Your task to perform on an android device: show emergency info Image 0: 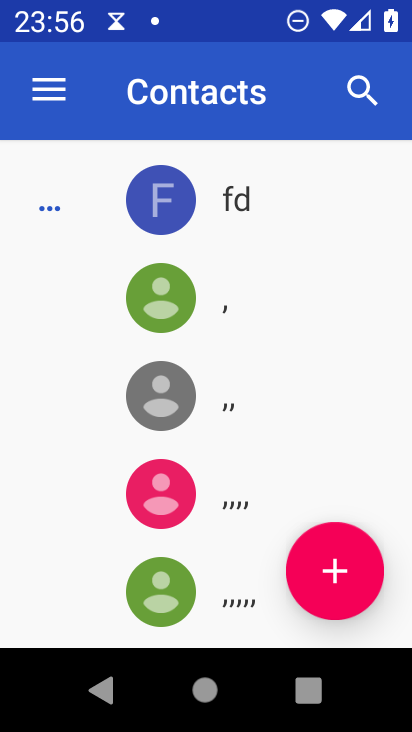
Step 0: press home button
Your task to perform on an android device: show emergency info Image 1: 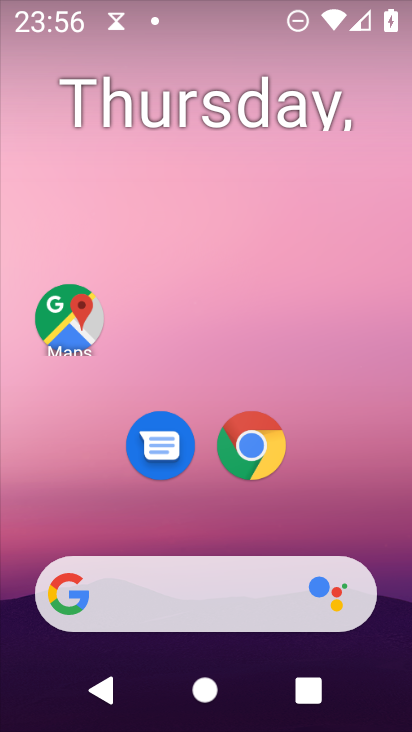
Step 1: drag from (230, 726) to (228, 49)
Your task to perform on an android device: show emergency info Image 2: 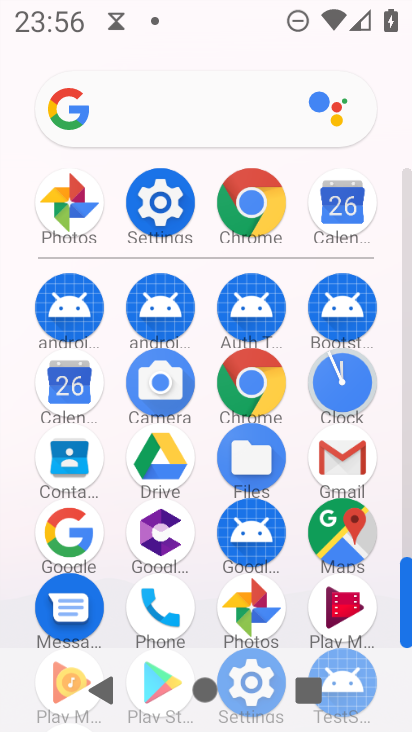
Step 2: click (165, 199)
Your task to perform on an android device: show emergency info Image 3: 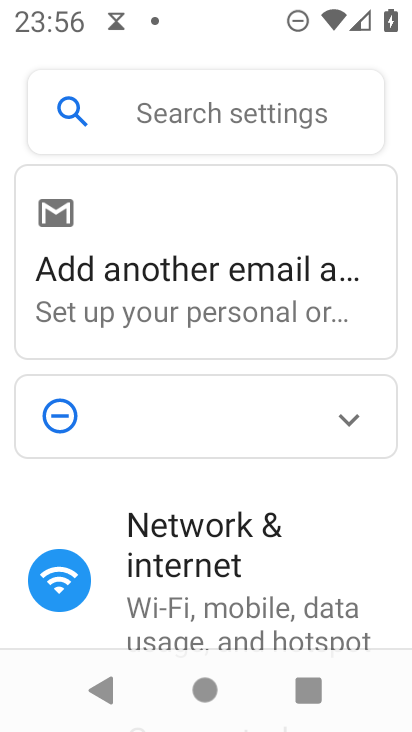
Step 3: drag from (241, 632) to (234, 248)
Your task to perform on an android device: show emergency info Image 4: 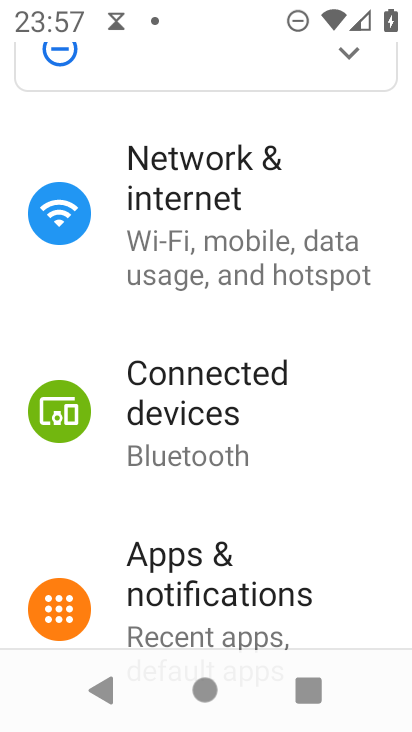
Step 4: drag from (228, 642) to (237, 300)
Your task to perform on an android device: show emergency info Image 5: 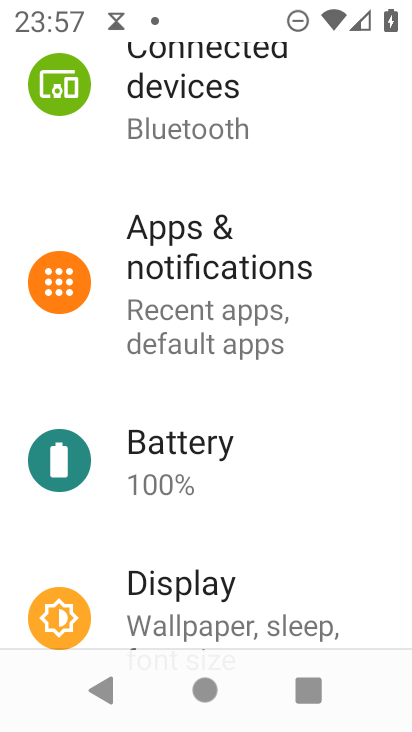
Step 5: drag from (231, 631) to (229, 347)
Your task to perform on an android device: show emergency info Image 6: 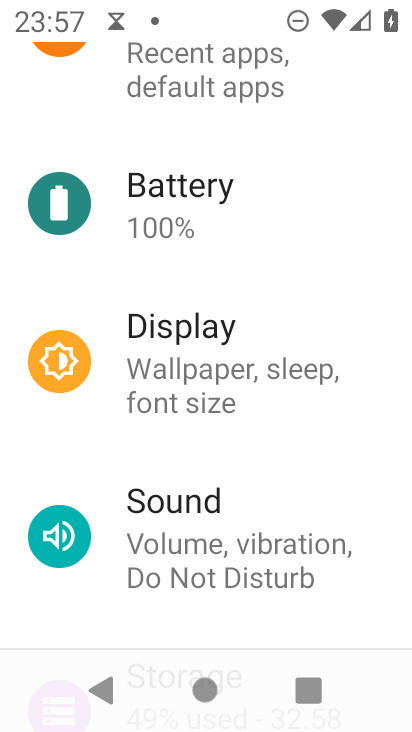
Step 6: drag from (234, 643) to (235, 260)
Your task to perform on an android device: show emergency info Image 7: 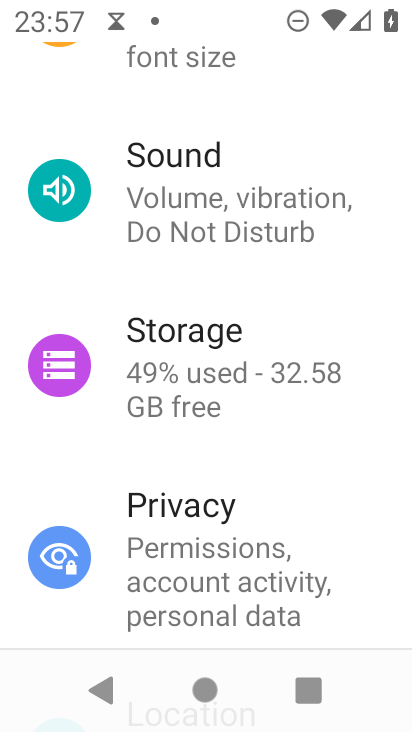
Step 7: drag from (250, 645) to (239, 242)
Your task to perform on an android device: show emergency info Image 8: 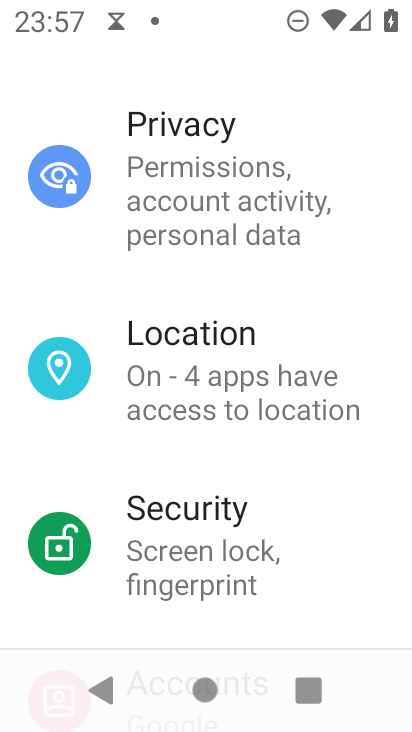
Step 8: drag from (255, 633) to (244, 243)
Your task to perform on an android device: show emergency info Image 9: 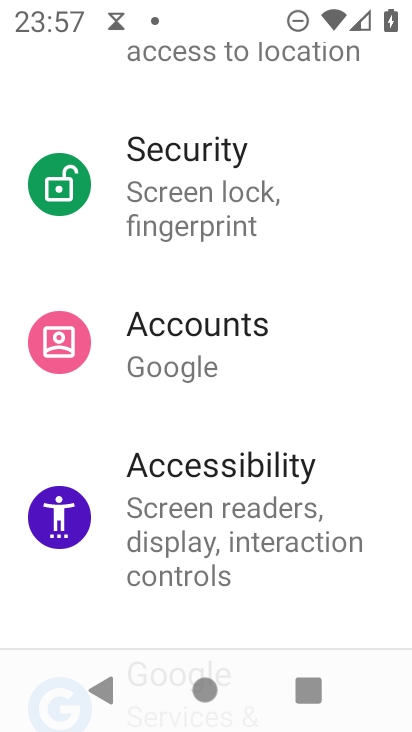
Step 9: drag from (234, 641) to (222, 229)
Your task to perform on an android device: show emergency info Image 10: 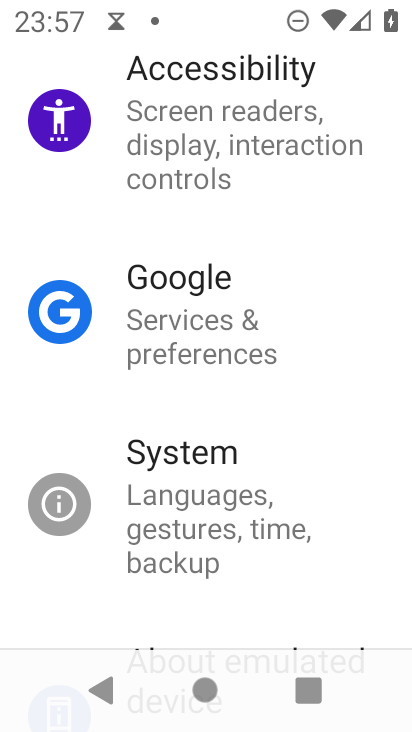
Step 10: drag from (220, 629) to (218, 269)
Your task to perform on an android device: show emergency info Image 11: 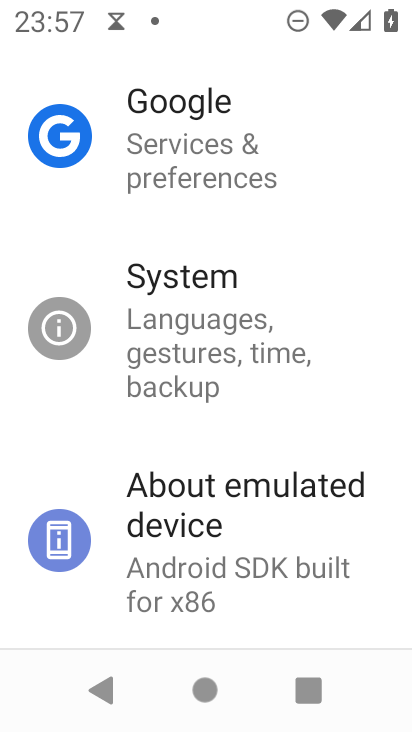
Step 11: click (179, 560)
Your task to perform on an android device: show emergency info Image 12: 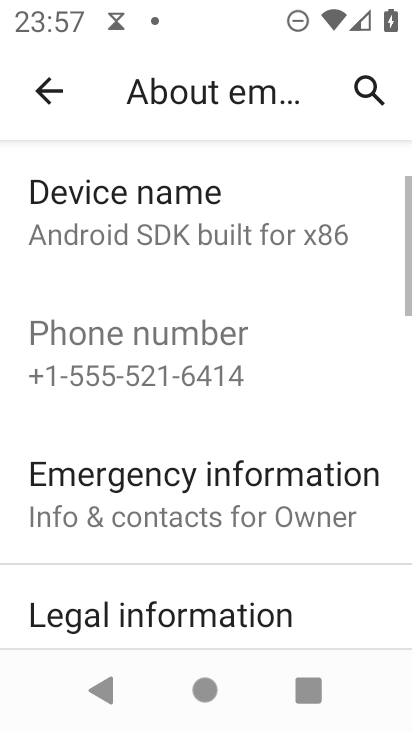
Step 12: click (167, 495)
Your task to perform on an android device: show emergency info Image 13: 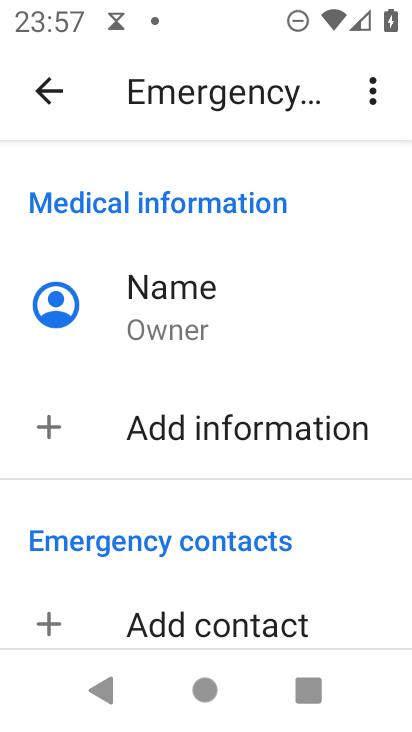
Step 13: task complete